Your task to perform on an android device: Go to Google maps Image 0: 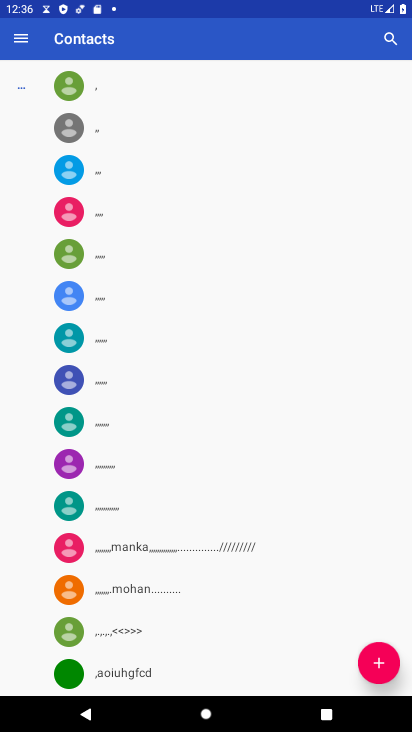
Step 0: press home button
Your task to perform on an android device: Go to Google maps Image 1: 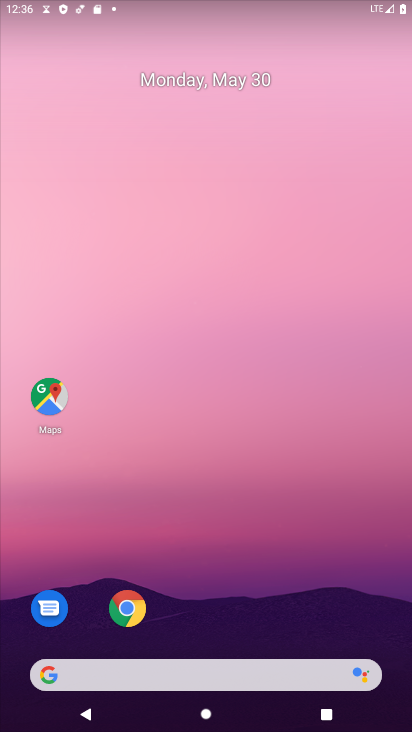
Step 1: click (61, 407)
Your task to perform on an android device: Go to Google maps Image 2: 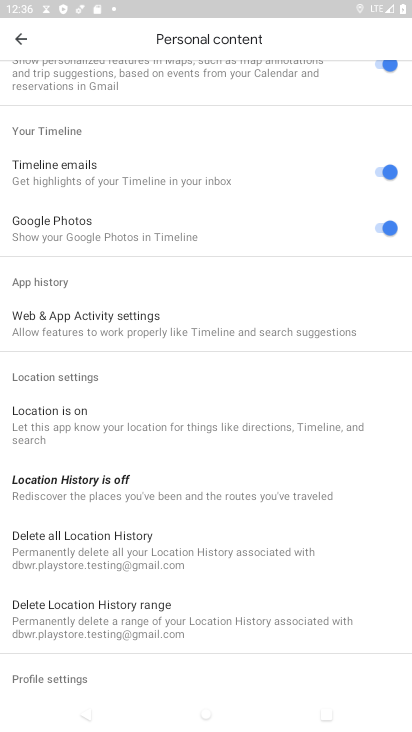
Step 2: click (31, 39)
Your task to perform on an android device: Go to Google maps Image 3: 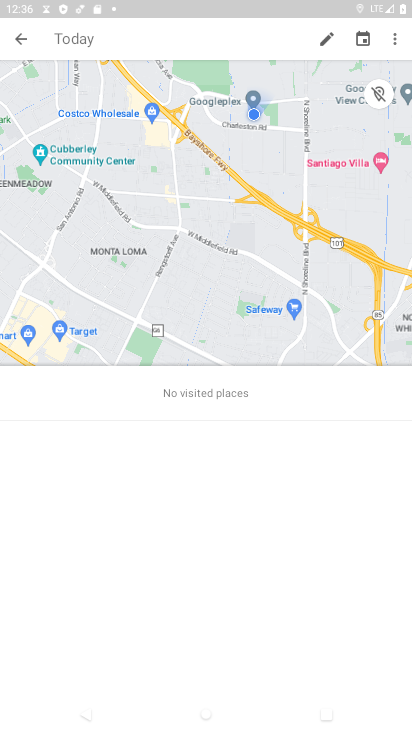
Step 3: click (35, 38)
Your task to perform on an android device: Go to Google maps Image 4: 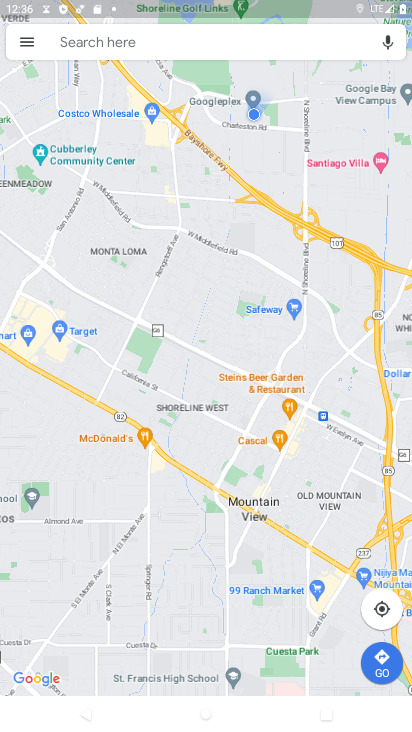
Step 4: task complete